Your task to perform on an android device: Go to Reddit.com Image 0: 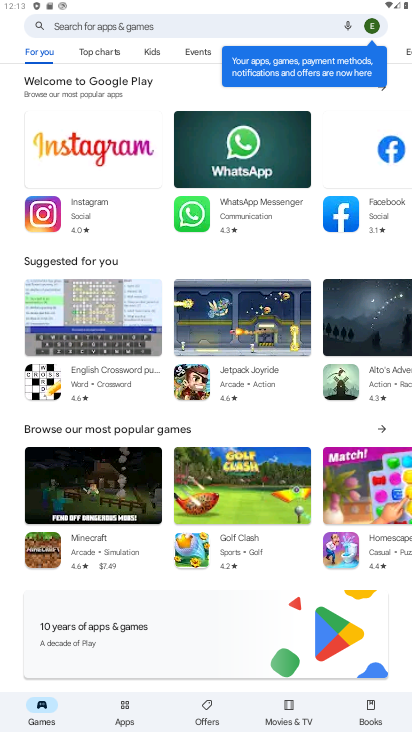
Step 0: press home button
Your task to perform on an android device: Go to Reddit.com Image 1: 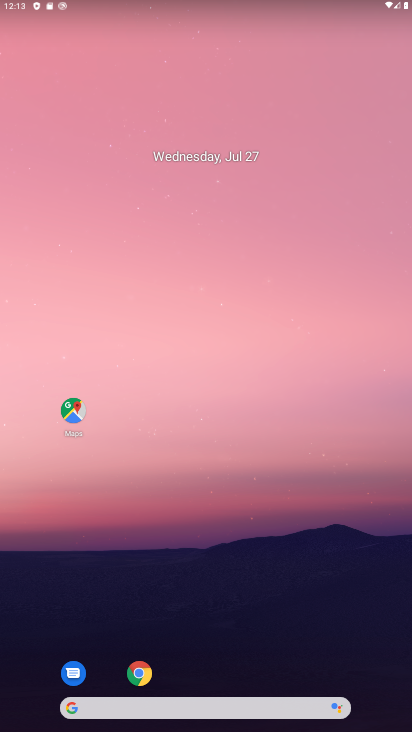
Step 1: drag from (329, 624) to (299, 10)
Your task to perform on an android device: Go to Reddit.com Image 2: 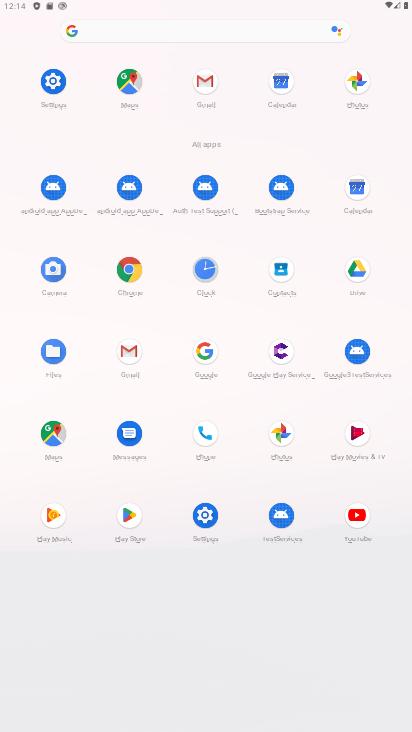
Step 2: click (125, 273)
Your task to perform on an android device: Go to Reddit.com Image 3: 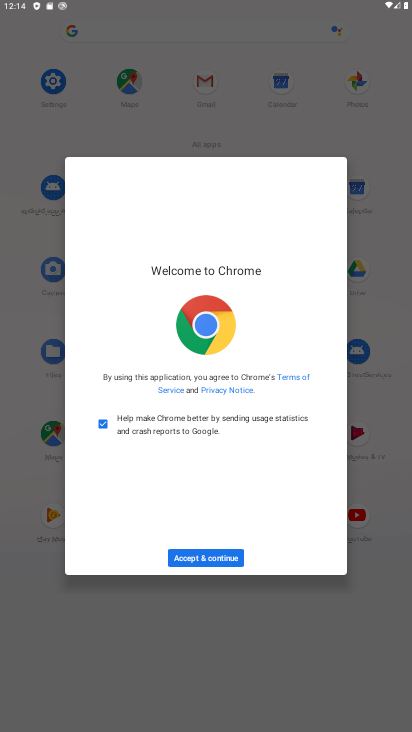
Step 3: click (217, 554)
Your task to perform on an android device: Go to Reddit.com Image 4: 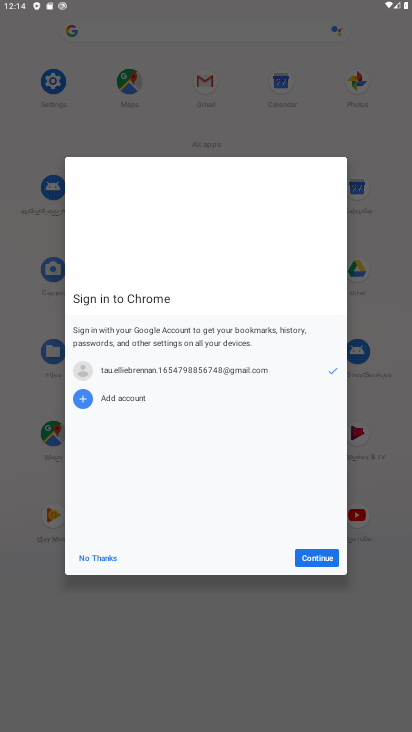
Step 4: click (324, 548)
Your task to perform on an android device: Go to Reddit.com Image 5: 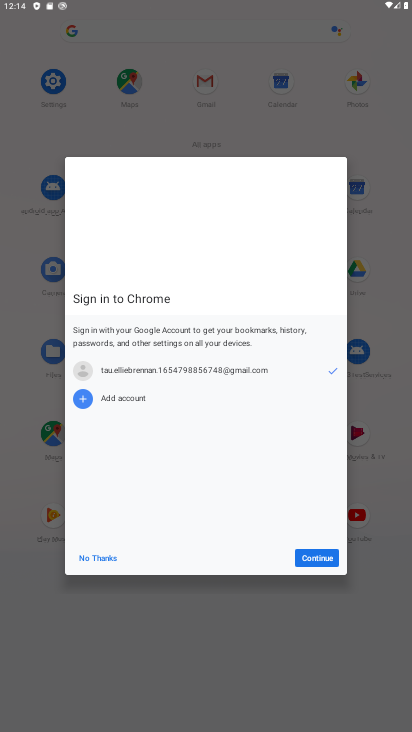
Step 5: click (324, 557)
Your task to perform on an android device: Go to Reddit.com Image 6: 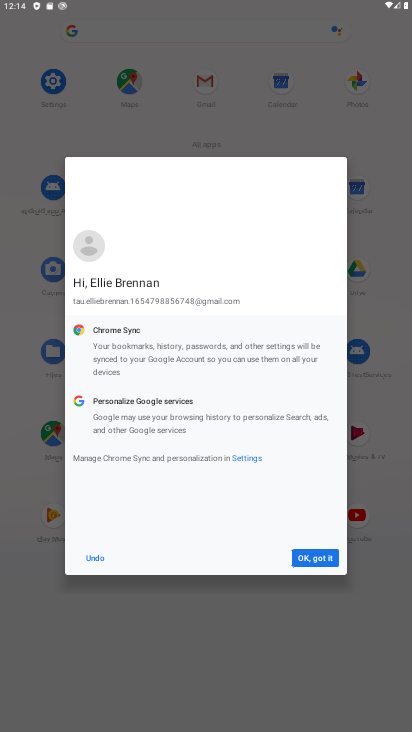
Step 6: click (320, 557)
Your task to perform on an android device: Go to Reddit.com Image 7: 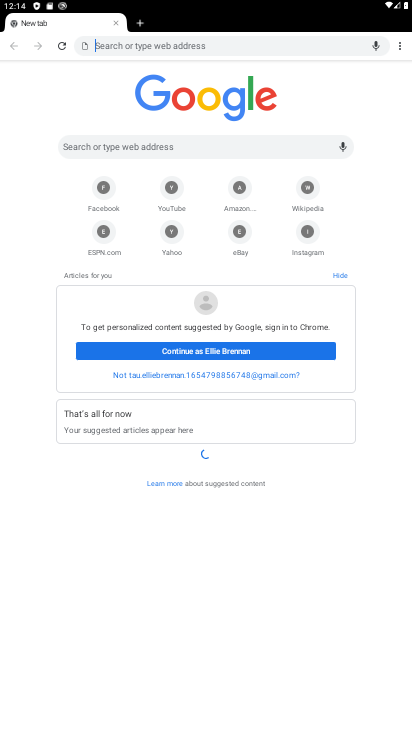
Step 7: click (273, 41)
Your task to perform on an android device: Go to Reddit.com Image 8: 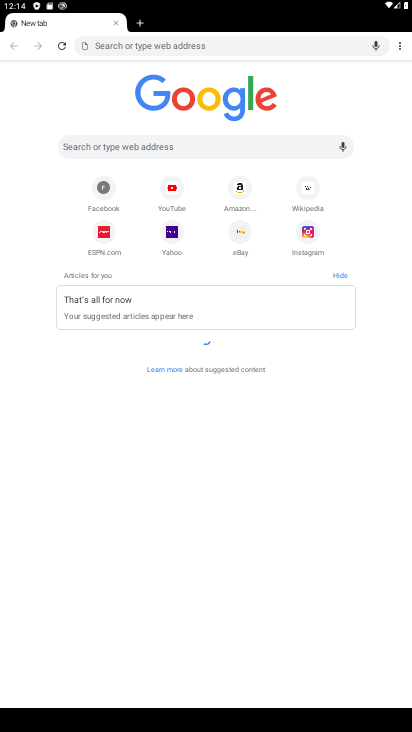
Step 8: type "reddit.com"
Your task to perform on an android device: Go to Reddit.com Image 9: 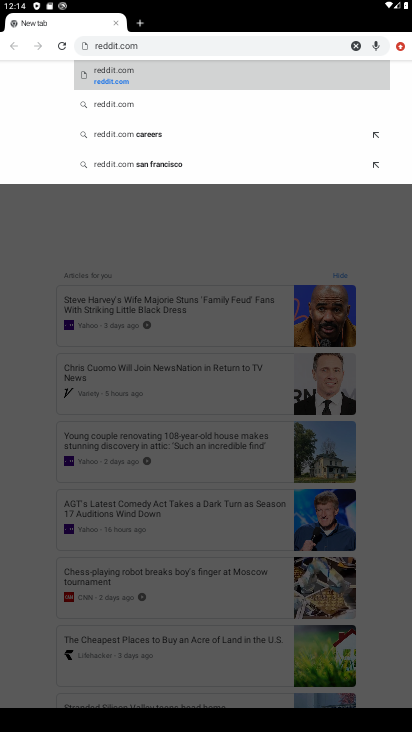
Step 9: click (175, 89)
Your task to perform on an android device: Go to Reddit.com Image 10: 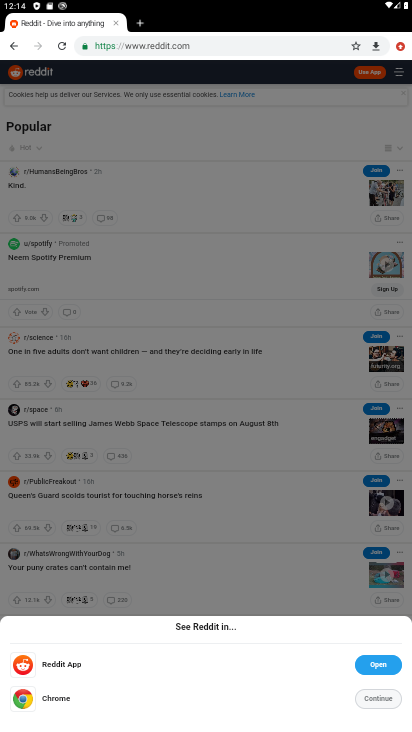
Step 10: task complete